Your task to perform on an android device: add a contact in the contacts app Image 0: 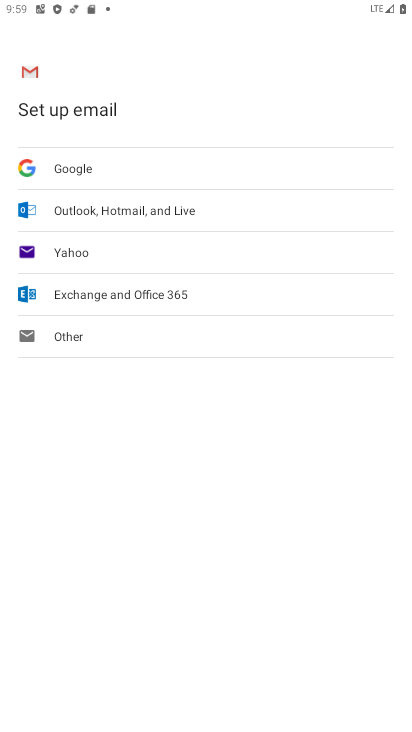
Step 0: press home button
Your task to perform on an android device: add a contact in the contacts app Image 1: 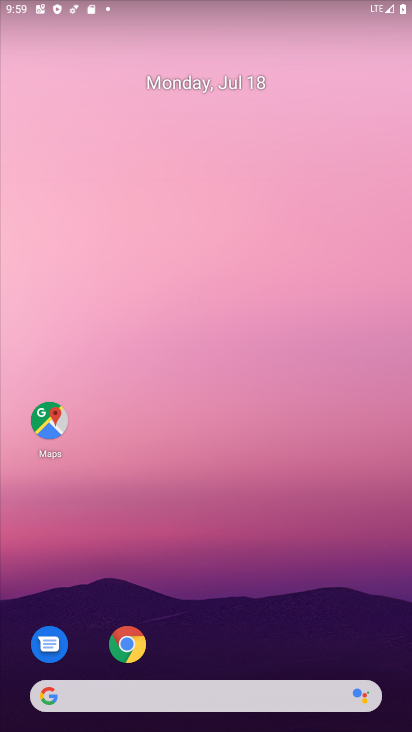
Step 1: drag from (364, 618) to (364, 120)
Your task to perform on an android device: add a contact in the contacts app Image 2: 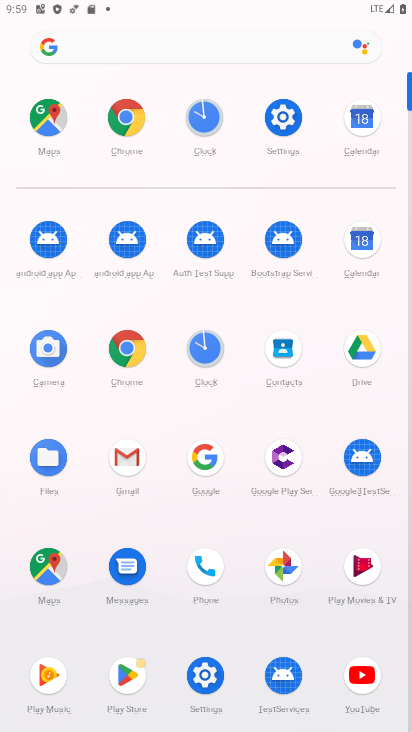
Step 2: click (288, 349)
Your task to perform on an android device: add a contact in the contacts app Image 3: 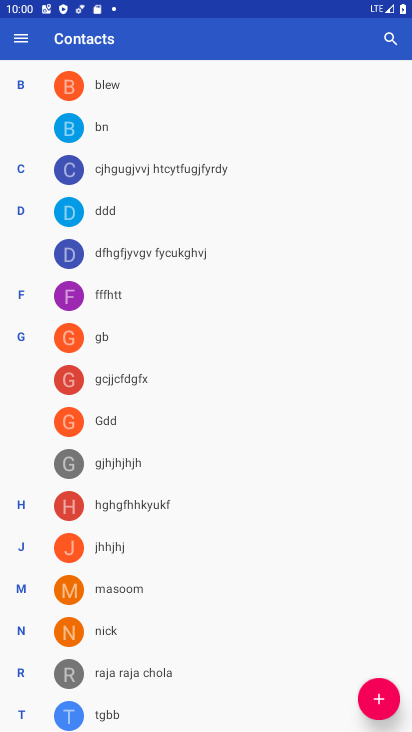
Step 3: click (386, 705)
Your task to perform on an android device: add a contact in the contacts app Image 4: 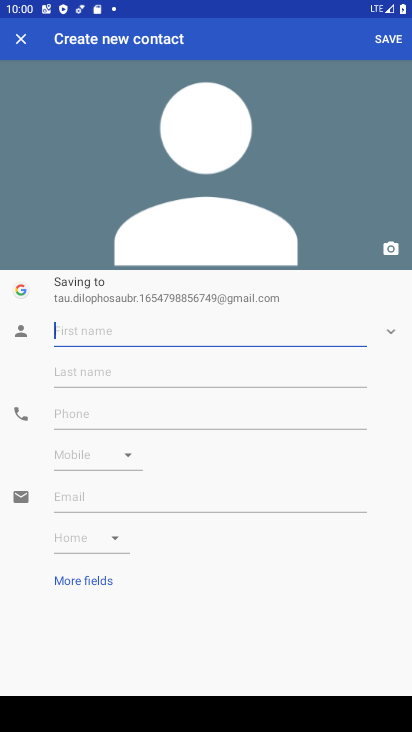
Step 4: type "fav"
Your task to perform on an android device: add a contact in the contacts app Image 5: 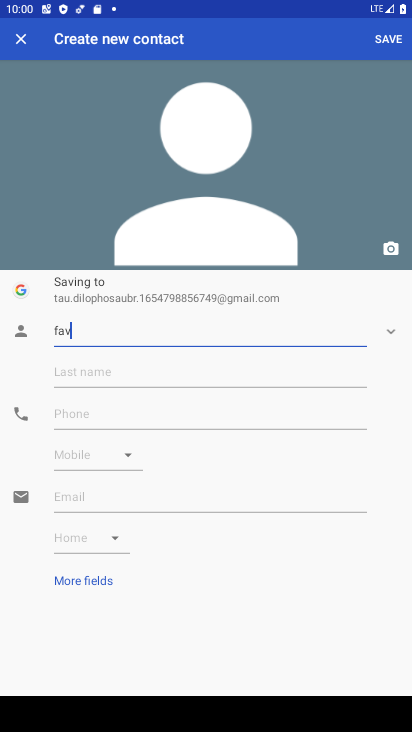
Step 5: click (340, 403)
Your task to perform on an android device: add a contact in the contacts app Image 6: 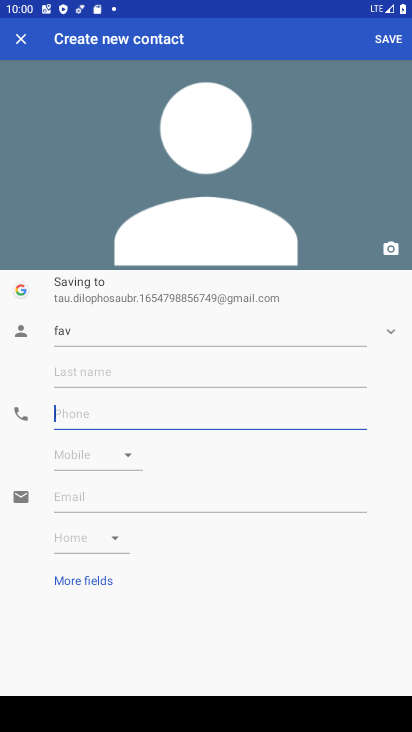
Step 6: type "1234567890"
Your task to perform on an android device: add a contact in the contacts app Image 7: 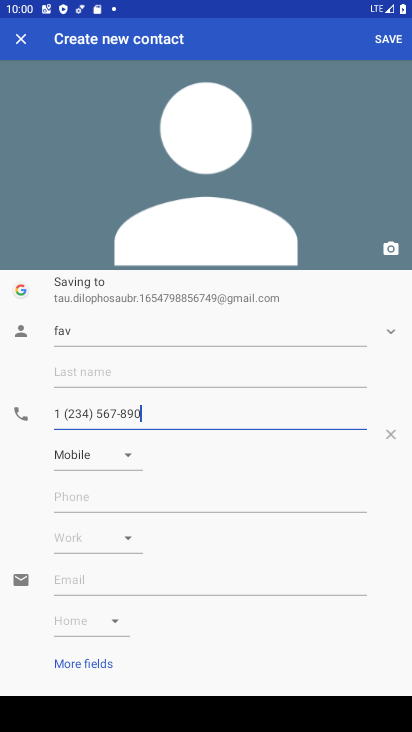
Step 7: click (389, 35)
Your task to perform on an android device: add a contact in the contacts app Image 8: 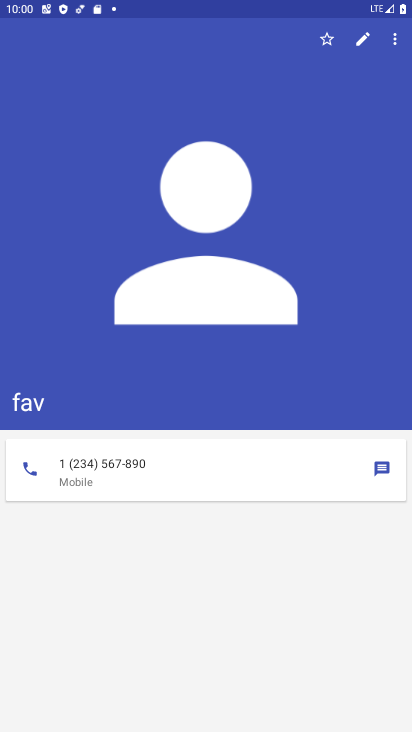
Step 8: task complete